Your task to perform on an android device: toggle priority inbox in the gmail app Image 0: 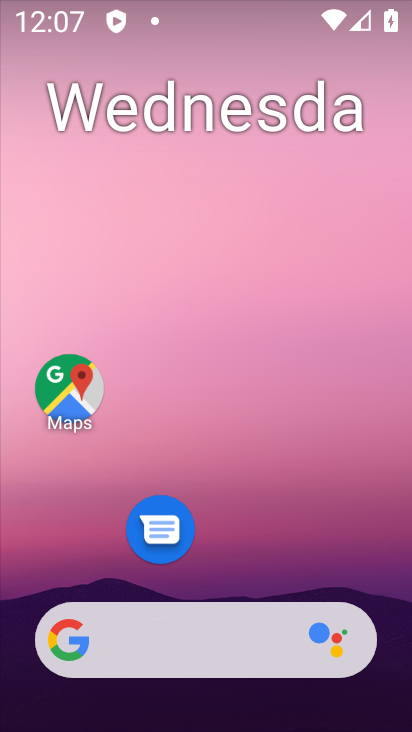
Step 0: drag from (203, 599) to (134, 114)
Your task to perform on an android device: toggle priority inbox in the gmail app Image 1: 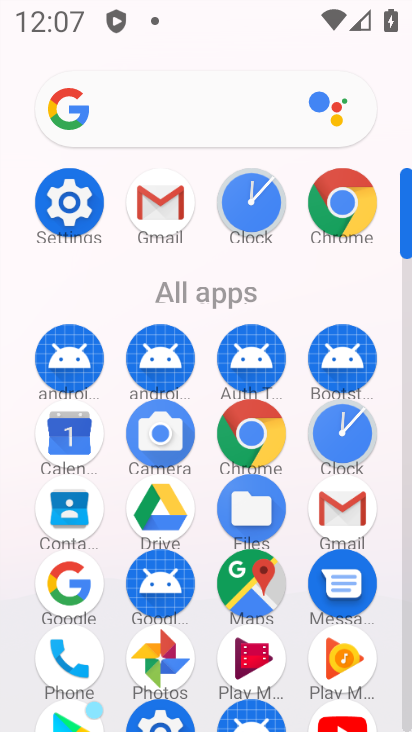
Step 1: click (337, 511)
Your task to perform on an android device: toggle priority inbox in the gmail app Image 2: 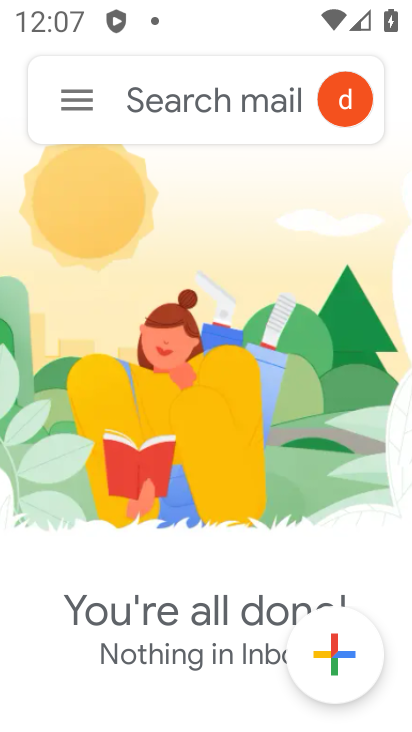
Step 2: click (77, 93)
Your task to perform on an android device: toggle priority inbox in the gmail app Image 3: 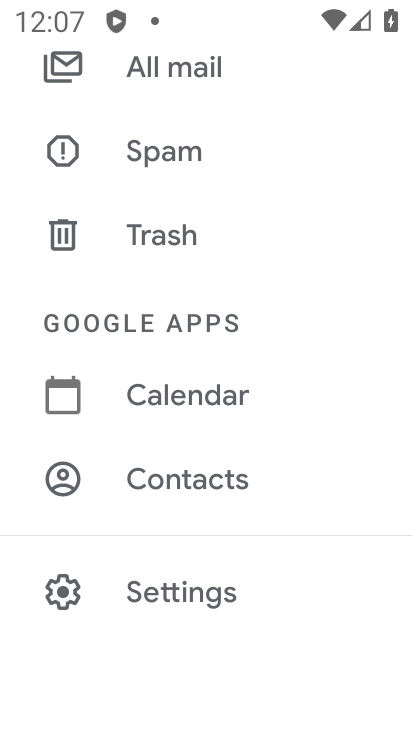
Step 3: click (139, 579)
Your task to perform on an android device: toggle priority inbox in the gmail app Image 4: 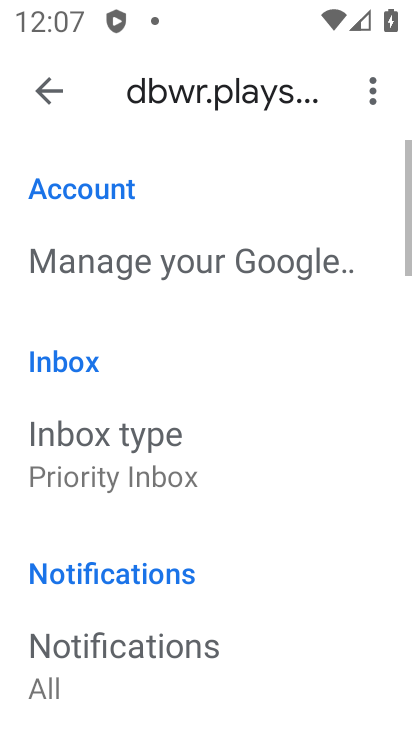
Step 4: drag from (173, 555) to (175, 439)
Your task to perform on an android device: toggle priority inbox in the gmail app Image 5: 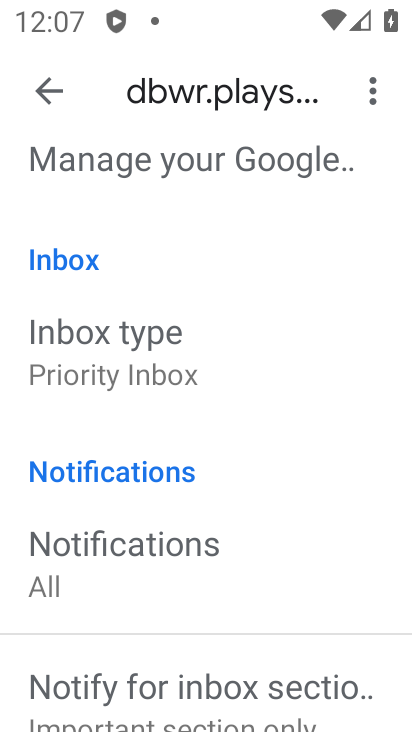
Step 5: click (130, 374)
Your task to perform on an android device: toggle priority inbox in the gmail app Image 6: 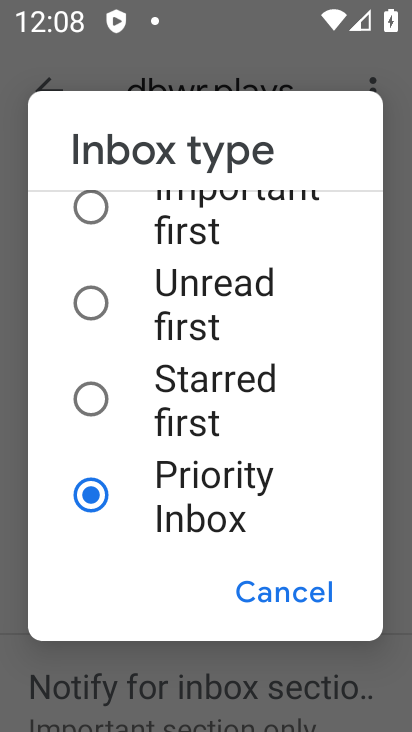
Step 6: click (198, 399)
Your task to perform on an android device: toggle priority inbox in the gmail app Image 7: 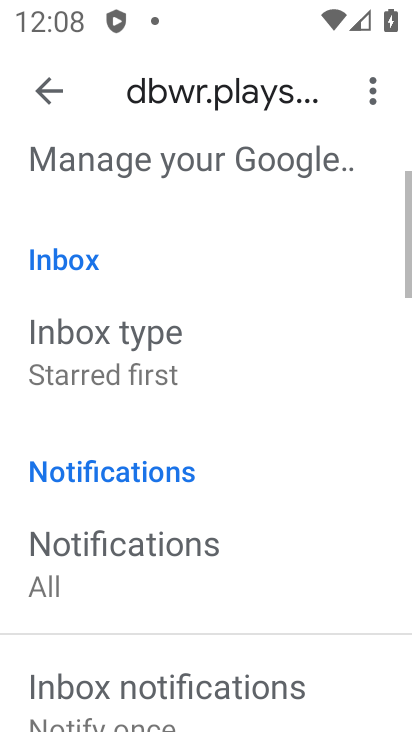
Step 7: task complete